Your task to perform on an android device: change the upload size in google photos Image 0: 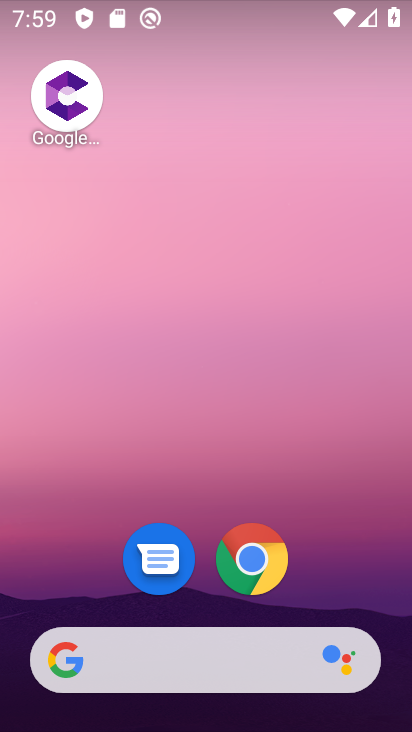
Step 0: drag from (0, 401) to (411, 364)
Your task to perform on an android device: change the upload size in google photos Image 1: 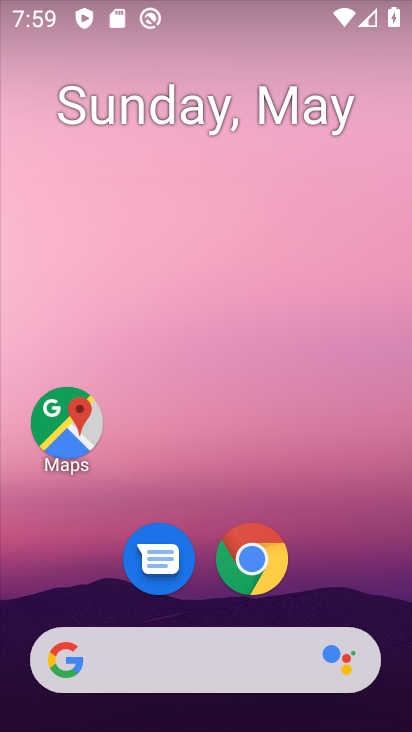
Step 1: drag from (315, 594) to (332, 268)
Your task to perform on an android device: change the upload size in google photos Image 2: 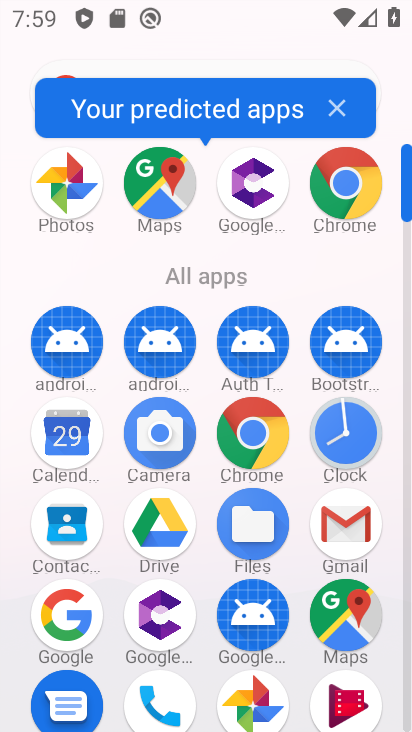
Step 2: click (63, 225)
Your task to perform on an android device: change the upload size in google photos Image 3: 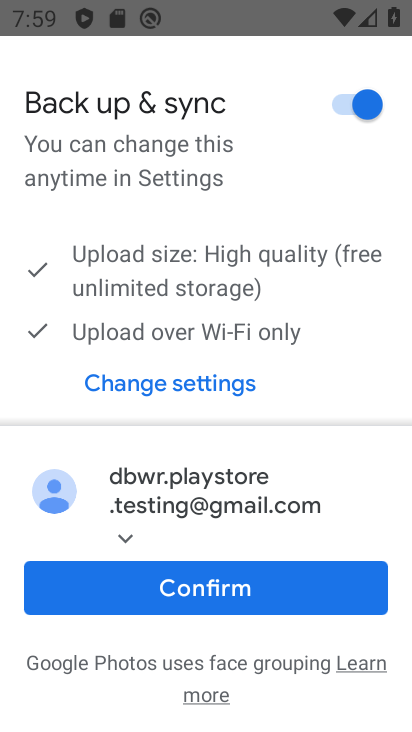
Step 3: click (169, 606)
Your task to perform on an android device: change the upload size in google photos Image 4: 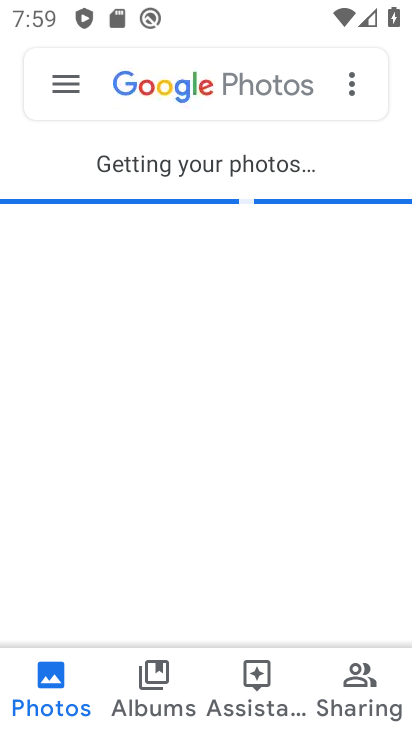
Step 4: click (84, 94)
Your task to perform on an android device: change the upload size in google photos Image 5: 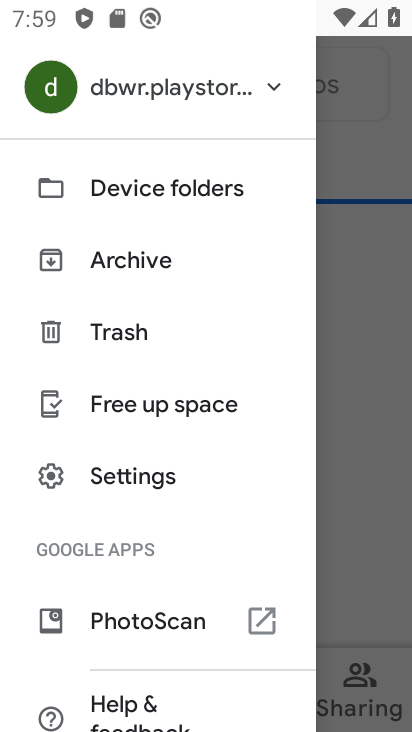
Step 5: click (167, 455)
Your task to perform on an android device: change the upload size in google photos Image 6: 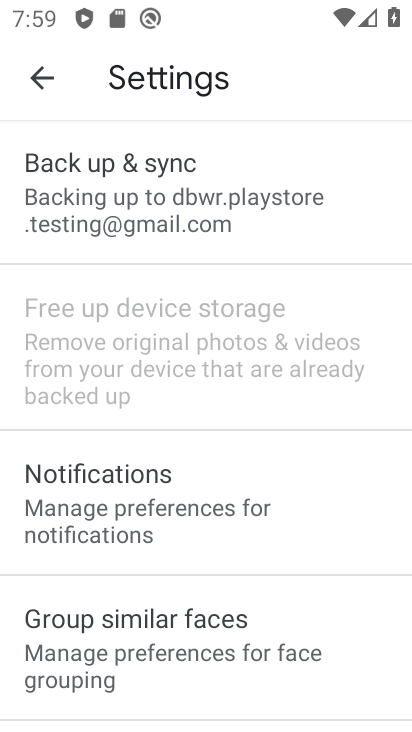
Step 6: click (250, 174)
Your task to perform on an android device: change the upload size in google photos Image 7: 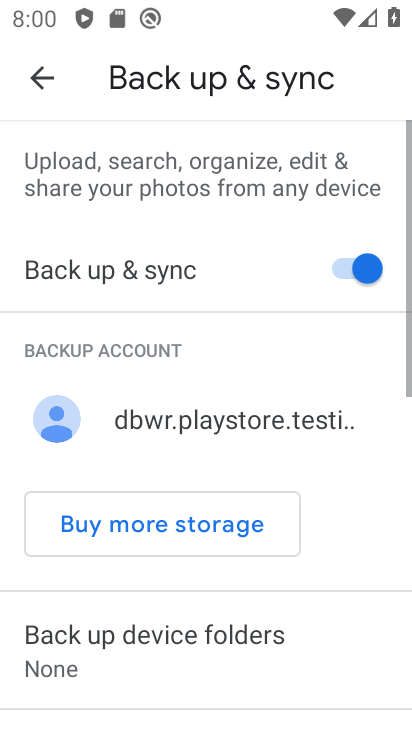
Step 7: drag from (309, 631) to (274, 227)
Your task to perform on an android device: change the upload size in google photos Image 8: 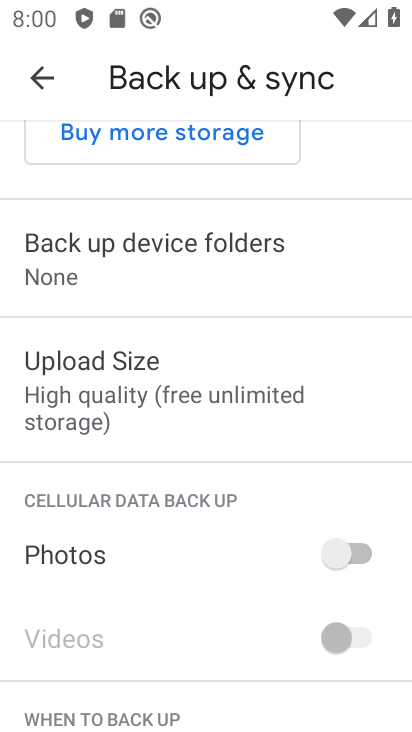
Step 8: click (315, 387)
Your task to perform on an android device: change the upload size in google photos Image 9: 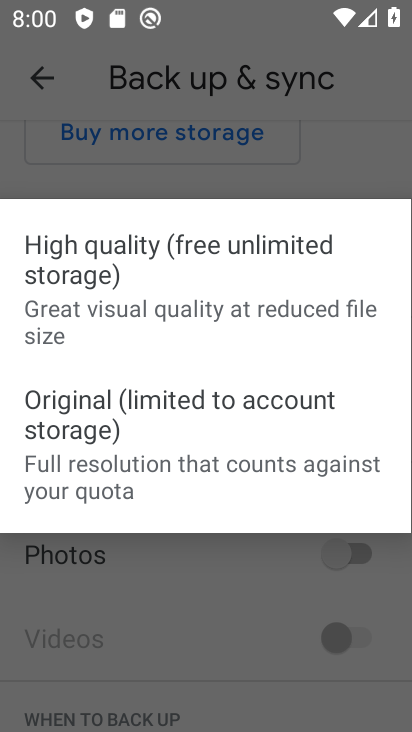
Step 9: click (309, 395)
Your task to perform on an android device: change the upload size in google photos Image 10: 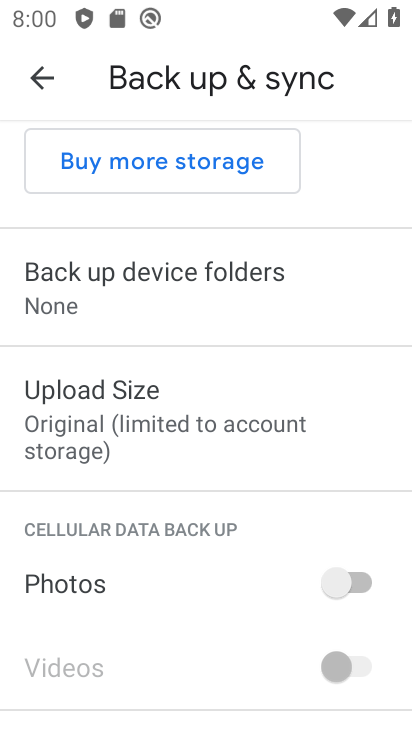
Step 10: task complete